Your task to perform on an android device: Open maps Image 0: 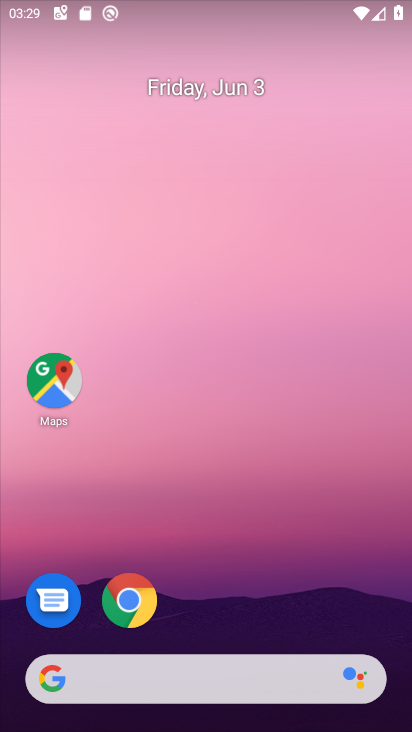
Step 0: click (48, 382)
Your task to perform on an android device: Open maps Image 1: 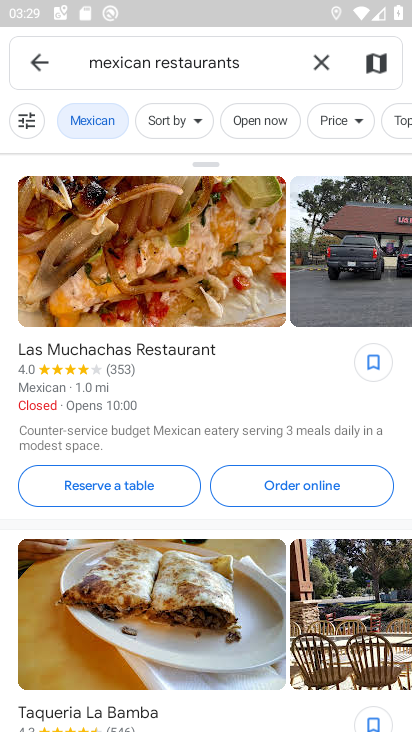
Step 1: task complete